Your task to perform on an android device: Open ESPN.com Image 0: 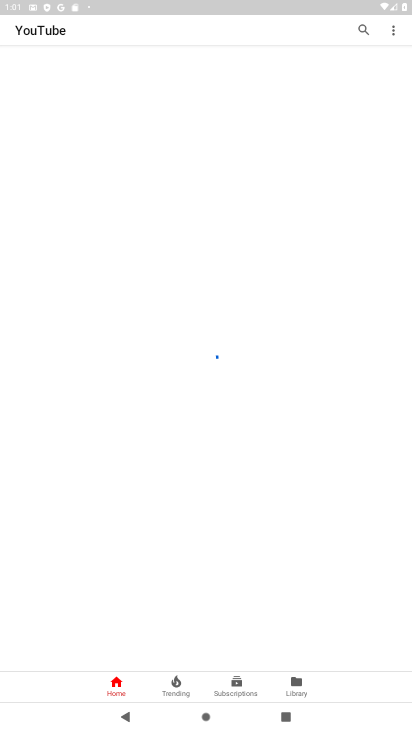
Step 0: press home button
Your task to perform on an android device: Open ESPN.com Image 1: 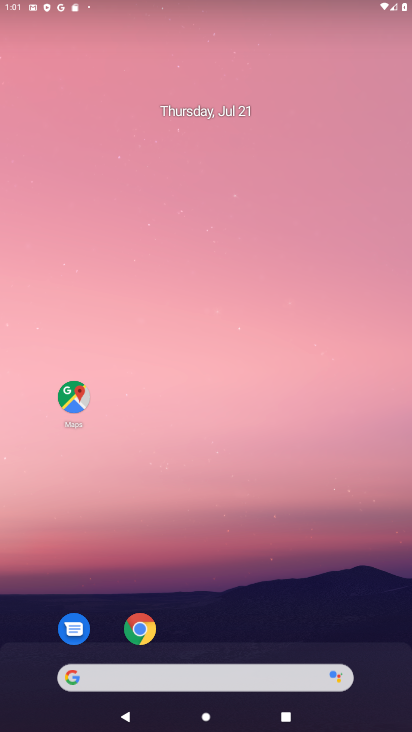
Step 1: drag from (213, 639) to (219, 73)
Your task to perform on an android device: Open ESPN.com Image 2: 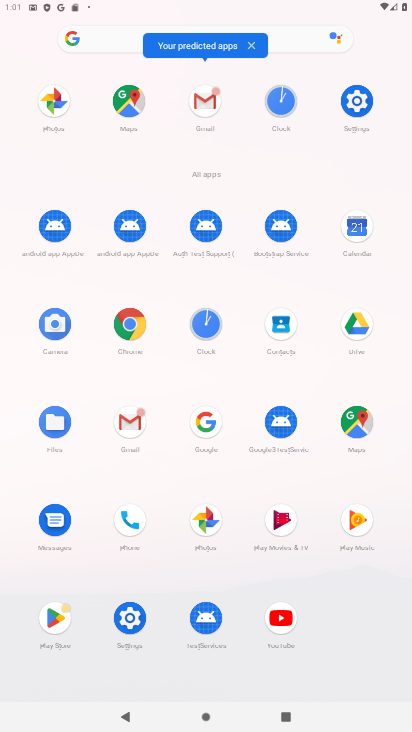
Step 2: click (205, 425)
Your task to perform on an android device: Open ESPN.com Image 3: 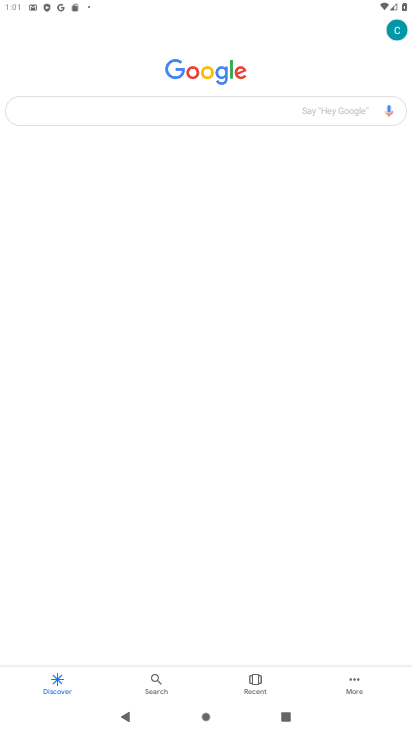
Step 3: click (160, 116)
Your task to perform on an android device: Open ESPN.com Image 4: 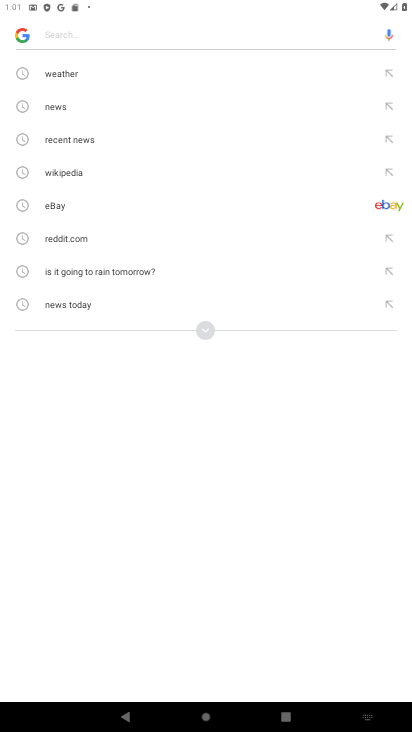
Step 4: type "espn.com"
Your task to perform on an android device: Open ESPN.com Image 5: 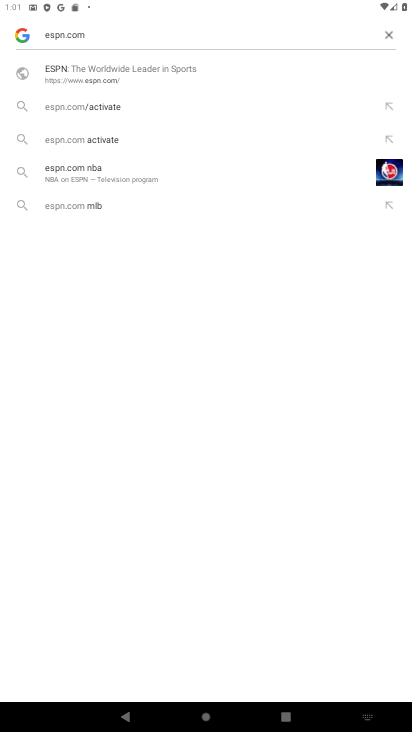
Step 5: click (132, 74)
Your task to perform on an android device: Open ESPN.com Image 6: 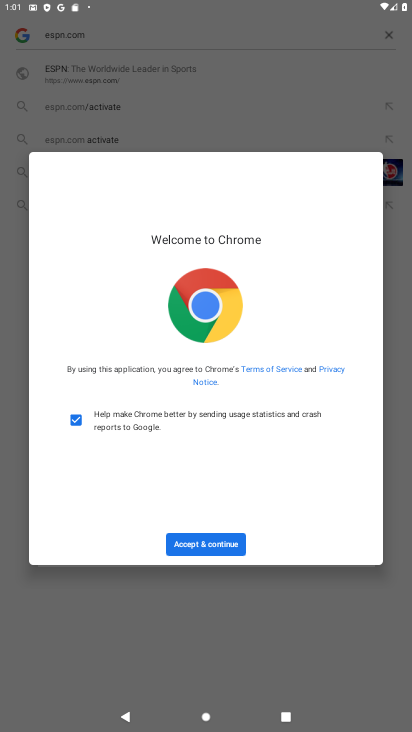
Step 6: click (190, 546)
Your task to perform on an android device: Open ESPN.com Image 7: 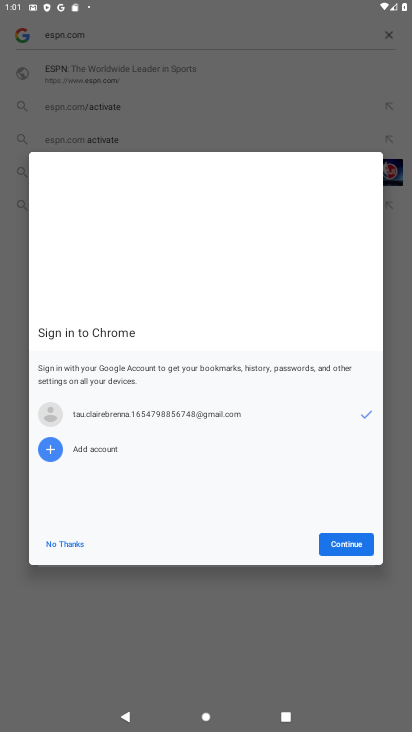
Step 7: click (349, 542)
Your task to perform on an android device: Open ESPN.com Image 8: 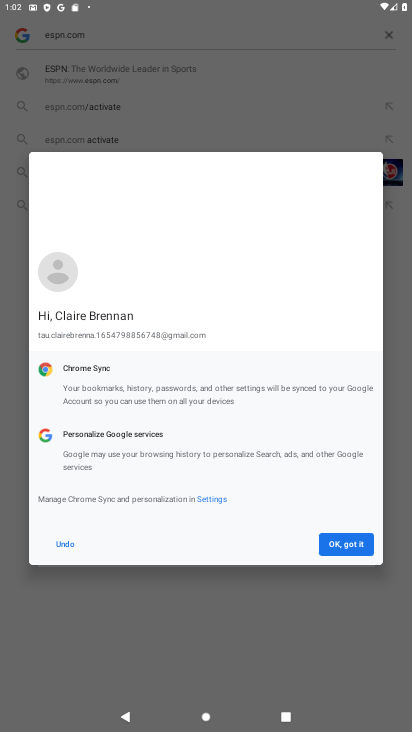
Step 8: click (349, 542)
Your task to perform on an android device: Open ESPN.com Image 9: 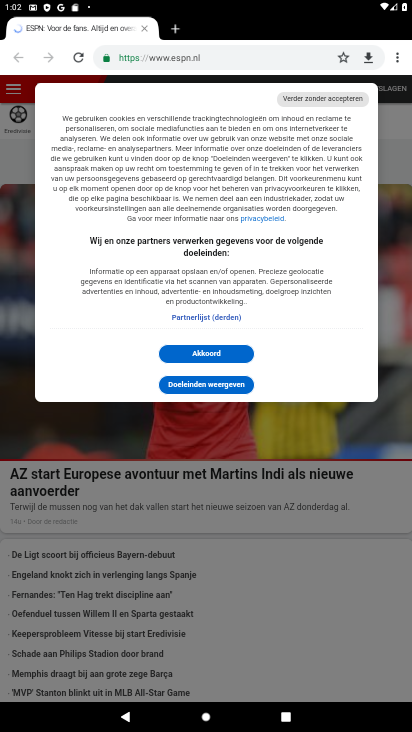
Step 9: task complete